Your task to perform on an android device: open a bookmark in the chrome app Image 0: 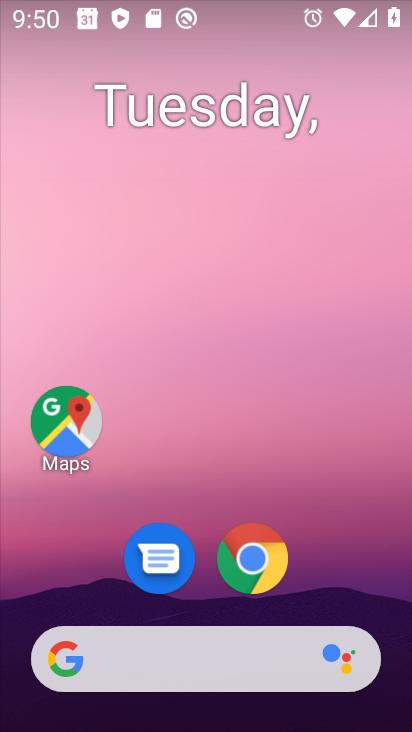
Step 0: drag from (301, 598) to (91, 4)
Your task to perform on an android device: open a bookmark in the chrome app Image 1: 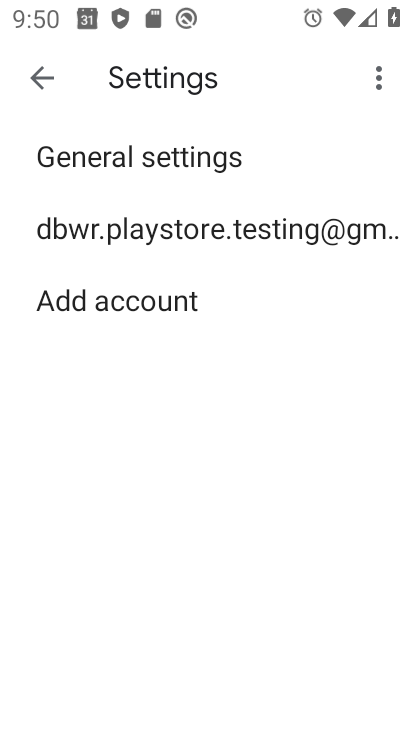
Step 1: click (37, 80)
Your task to perform on an android device: open a bookmark in the chrome app Image 2: 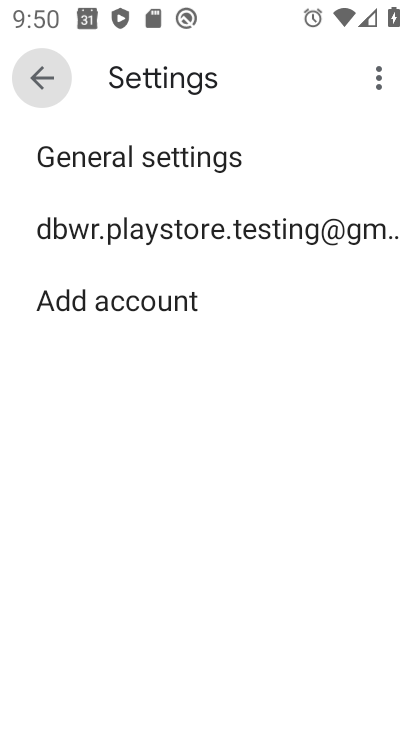
Step 2: click (38, 79)
Your task to perform on an android device: open a bookmark in the chrome app Image 3: 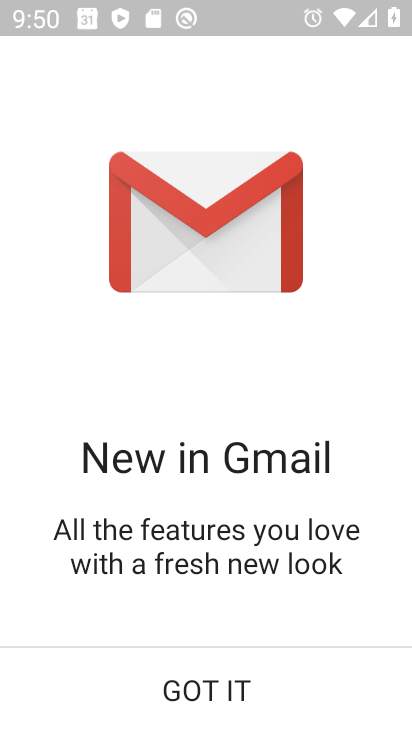
Step 3: click (38, 79)
Your task to perform on an android device: open a bookmark in the chrome app Image 4: 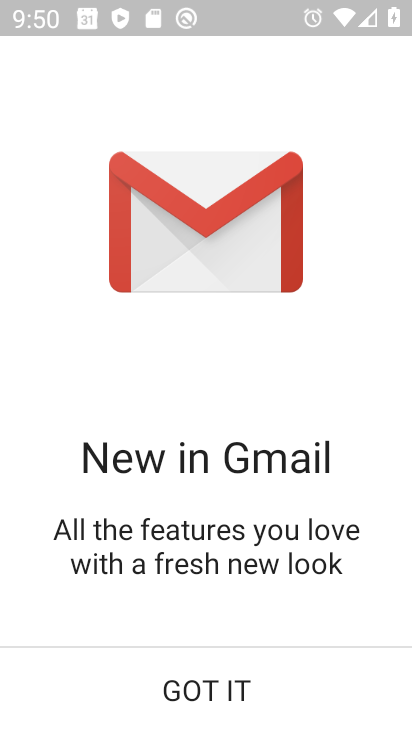
Step 4: click (219, 688)
Your task to perform on an android device: open a bookmark in the chrome app Image 5: 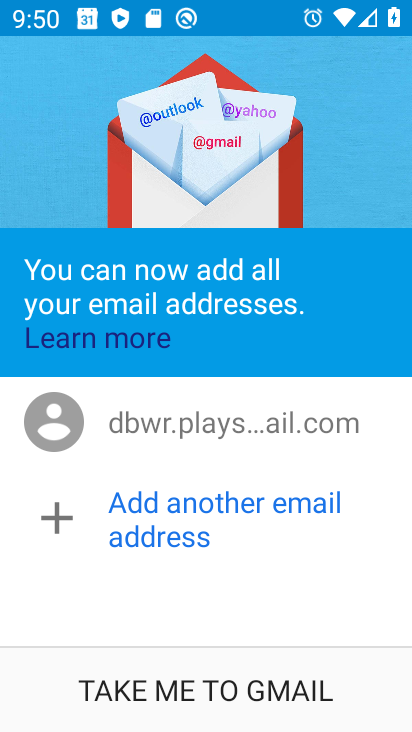
Step 5: press home button
Your task to perform on an android device: open a bookmark in the chrome app Image 6: 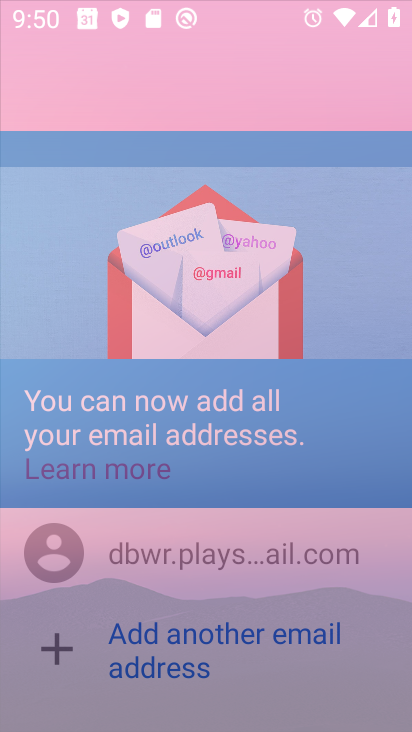
Step 6: press home button
Your task to perform on an android device: open a bookmark in the chrome app Image 7: 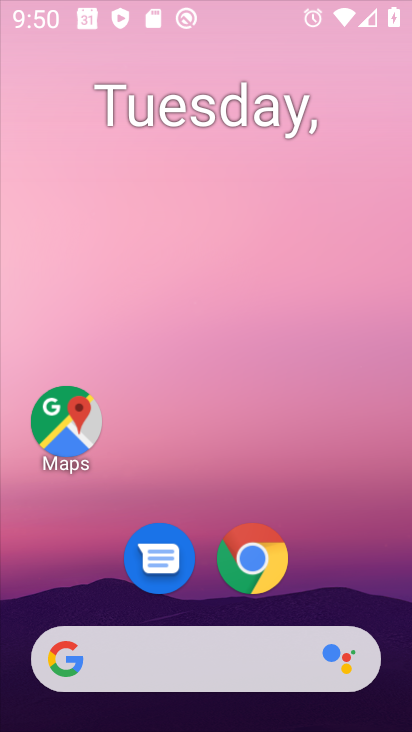
Step 7: press back button
Your task to perform on an android device: open a bookmark in the chrome app Image 8: 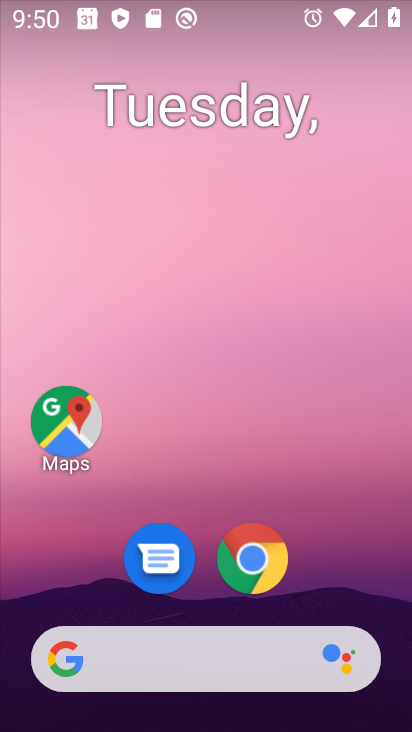
Step 8: drag from (367, 573) to (105, 11)
Your task to perform on an android device: open a bookmark in the chrome app Image 9: 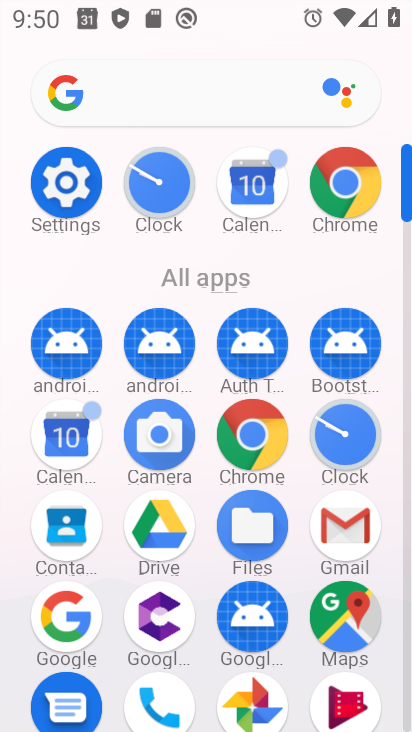
Step 9: click (343, 181)
Your task to perform on an android device: open a bookmark in the chrome app Image 10: 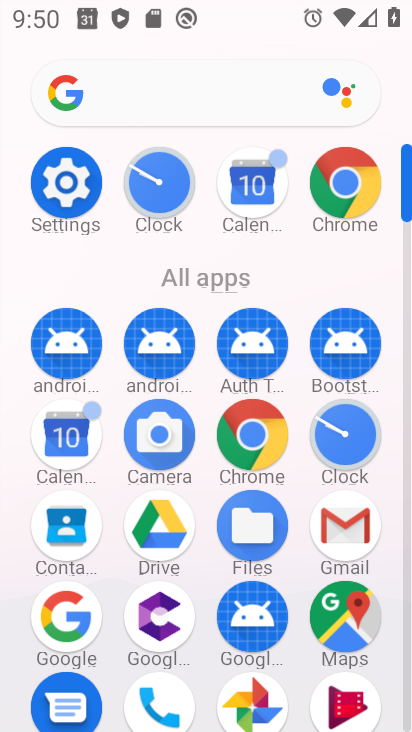
Step 10: click (352, 156)
Your task to perform on an android device: open a bookmark in the chrome app Image 11: 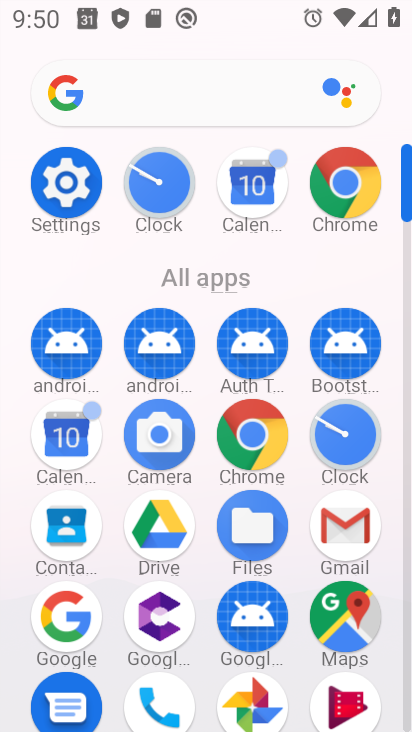
Step 11: click (340, 184)
Your task to perform on an android device: open a bookmark in the chrome app Image 12: 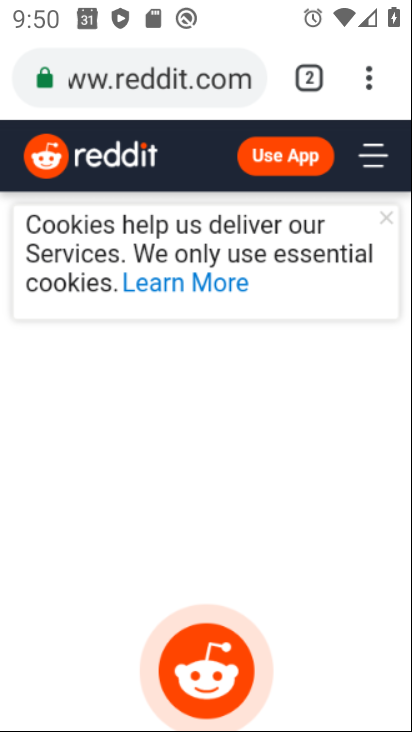
Step 12: click (340, 184)
Your task to perform on an android device: open a bookmark in the chrome app Image 13: 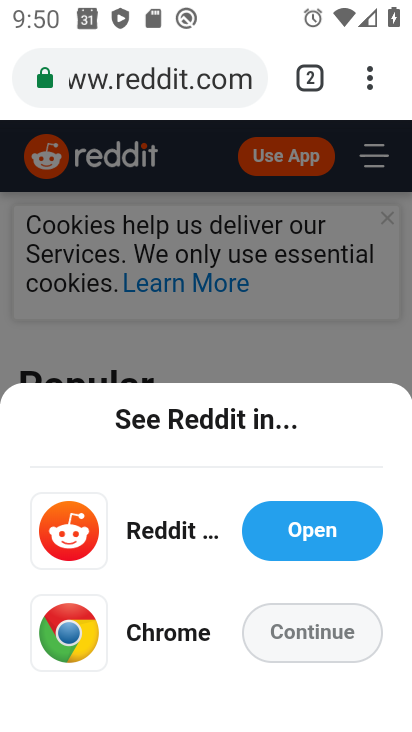
Step 13: drag from (363, 77) to (70, 289)
Your task to perform on an android device: open a bookmark in the chrome app Image 14: 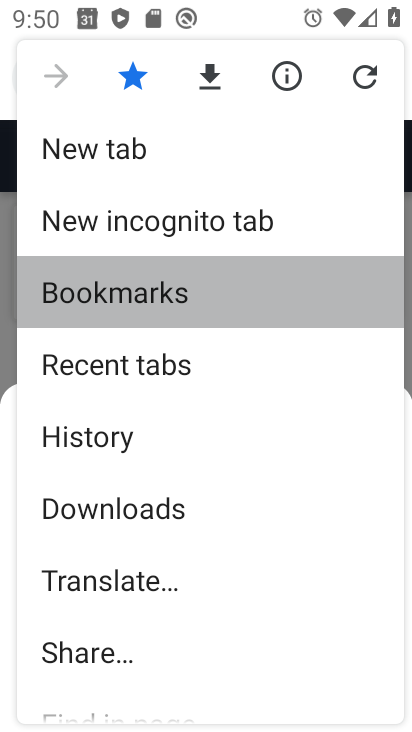
Step 14: click (70, 289)
Your task to perform on an android device: open a bookmark in the chrome app Image 15: 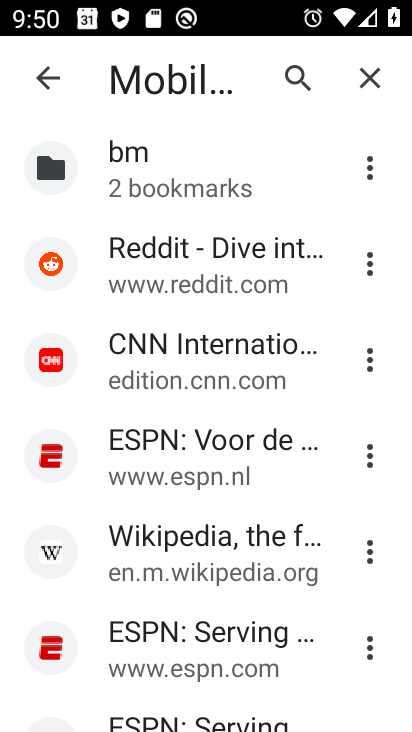
Step 15: task complete